Your task to perform on an android device: Open notification settings Image 0: 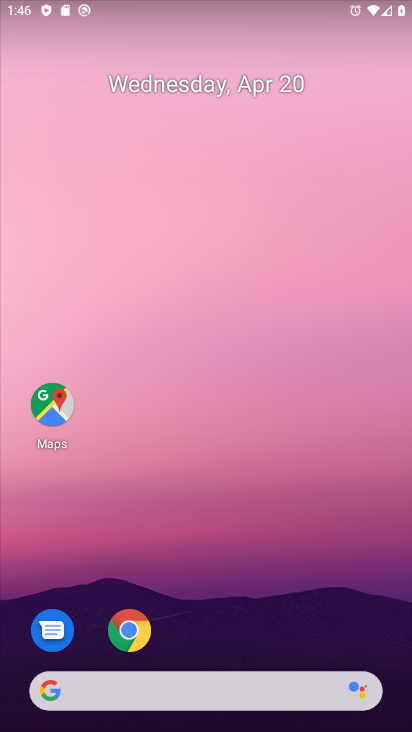
Step 0: drag from (147, 424) to (77, 77)
Your task to perform on an android device: Open notification settings Image 1: 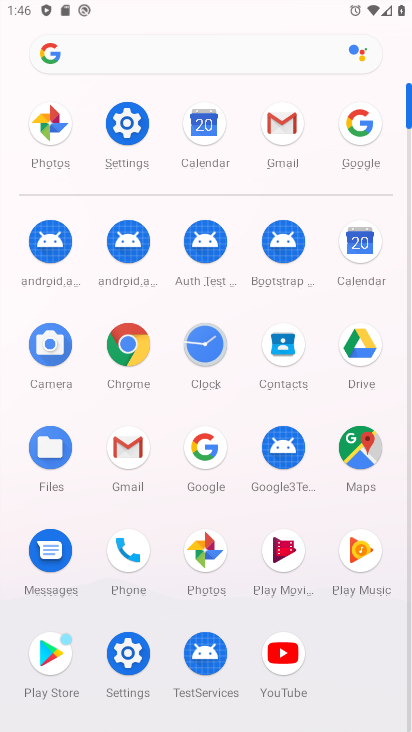
Step 1: click (133, 646)
Your task to perform on an android device: Open notification settings Image 2: 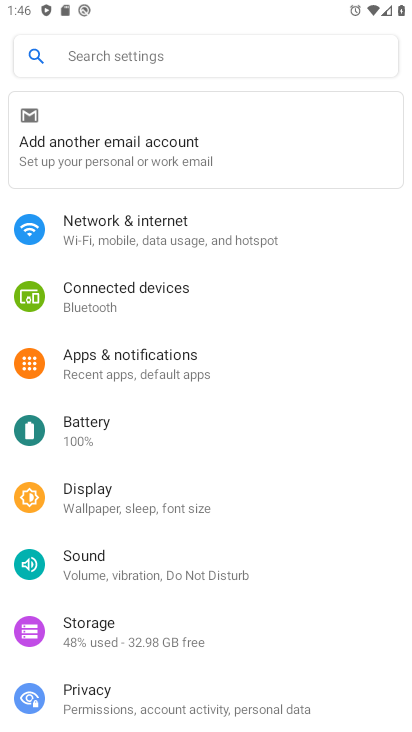
Step 2: click (121, 373)
Your task to perform on an android device: Open notification settings Image 3: 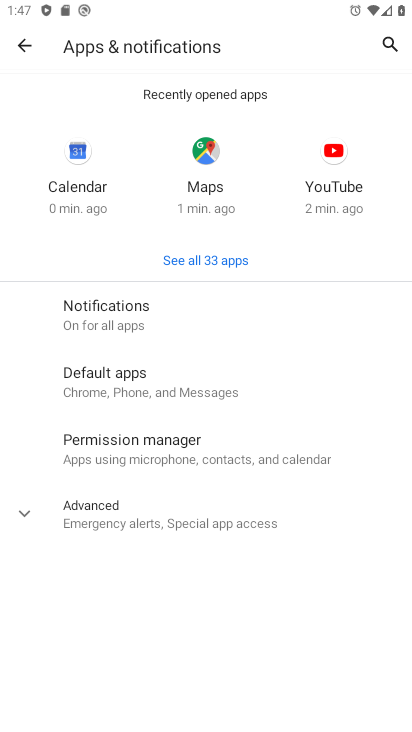
Step 3: drag from (72, 606) to (61, 524)
Your task to perform on an android device: Open notification settings Image 4: 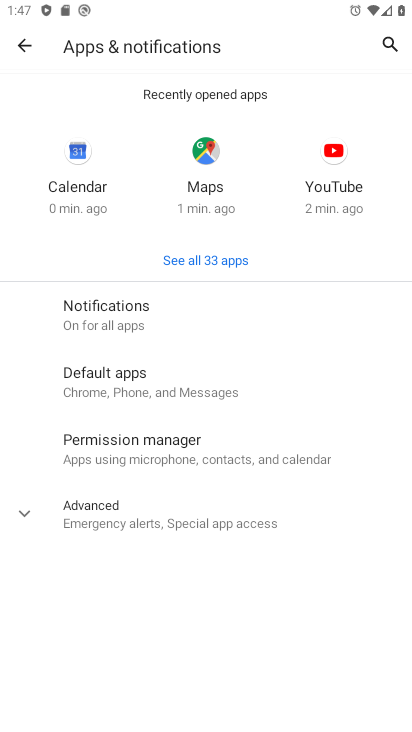
Step 4: click (61, 524)
Your task to perform on an android device: Open notification settings Image 5: 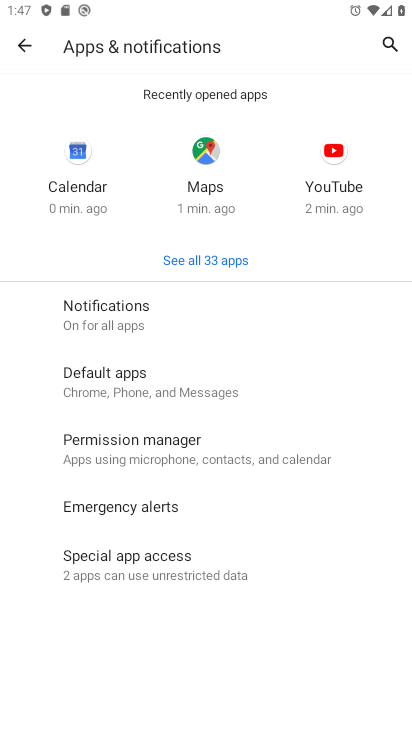
Step 5: click (109, 299)
Your task to perform on an android device: Open notification settings Image 6: 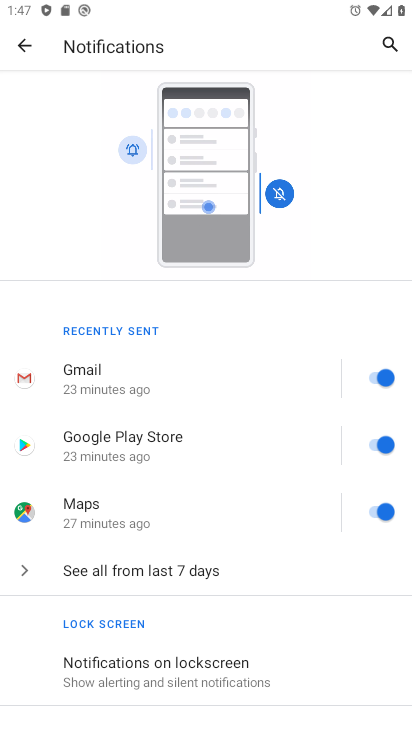
Step 6: drag from (186, 498) to (186, 234)
Your task to perform on an android device: Open notification settings Image 7: 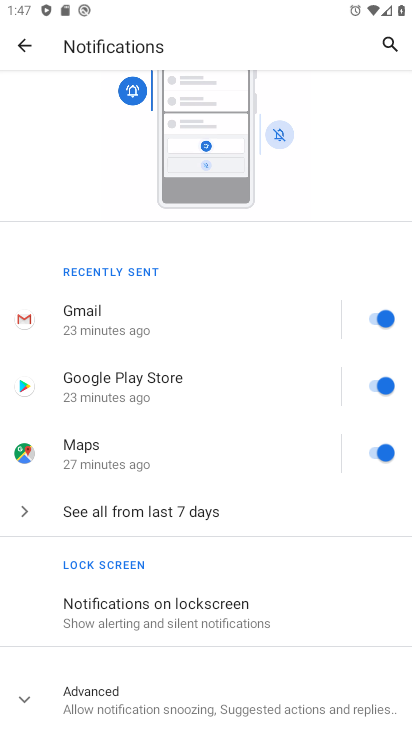
Step 7: drag from (187, 625) to (209, 458)
Your task to perform on an android device: Open notification settings Image 8: 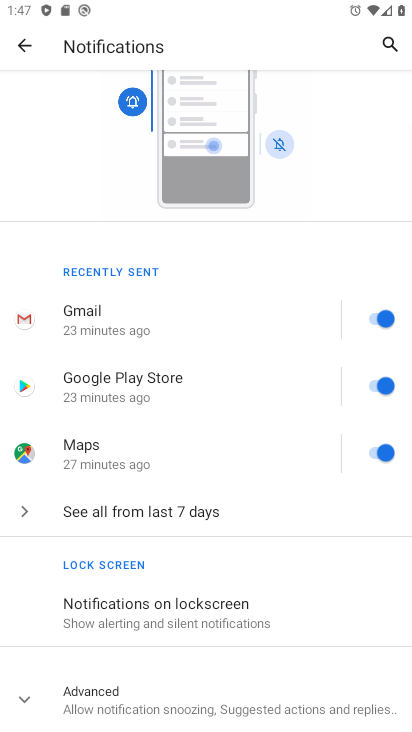
Step 8: click (171, 693)
Your task to perform on an android device: Open notification settings Image 9: 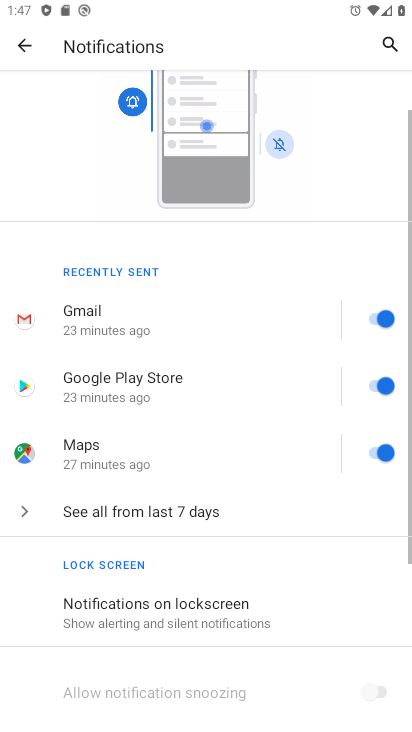
Step 9: task complete